Your task to perform on an android device: turn on the 12-hour format for clock Image 0: 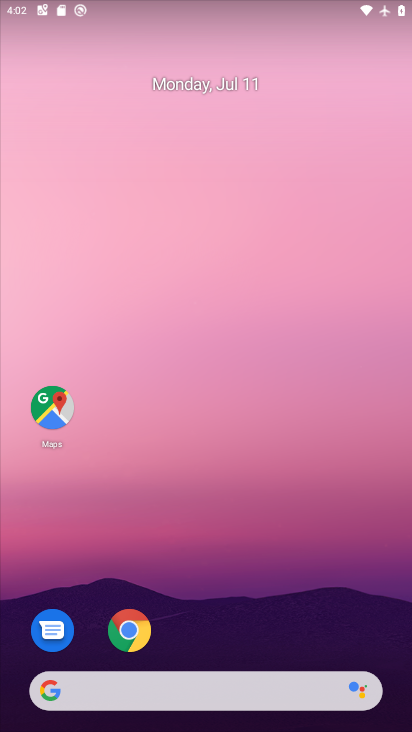
Step 0: drag from (225, 637) to (263, 162)
Your task to perform on an android device: turn on the 12-hour format for clock Image 1: 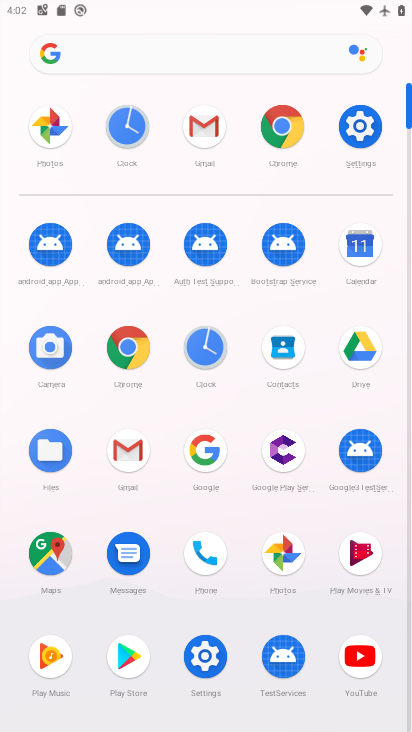
Step 1: click (126, 130)
Your task to perform on an android device: turn on the 12-hour format for clock Image 2: 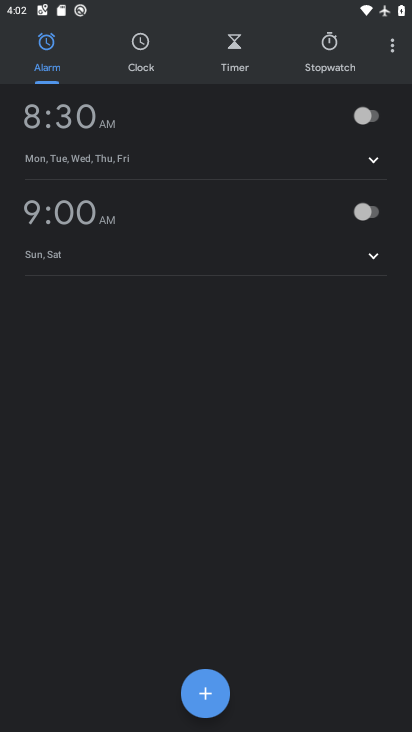
Step 2: click (389, 50)
Your task to perform on an android device: turn on the 12-hour format for clock Image 3: 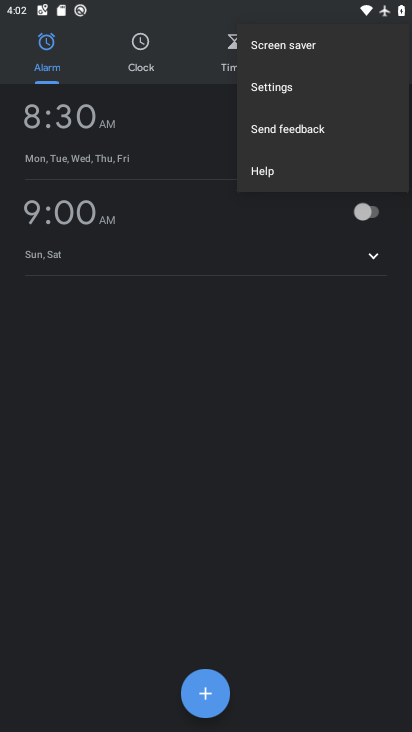
Step 3: click (325, 101)
Your task to perform on an android device: turn on the 12-hour format for clock Image 4: 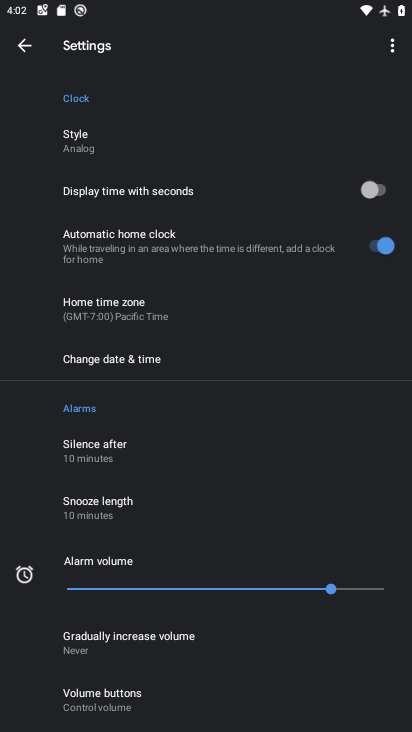
Step 4: click (243, 364)
Your task to perform on an android device: turn on the 12-hour format for clock Image 5: 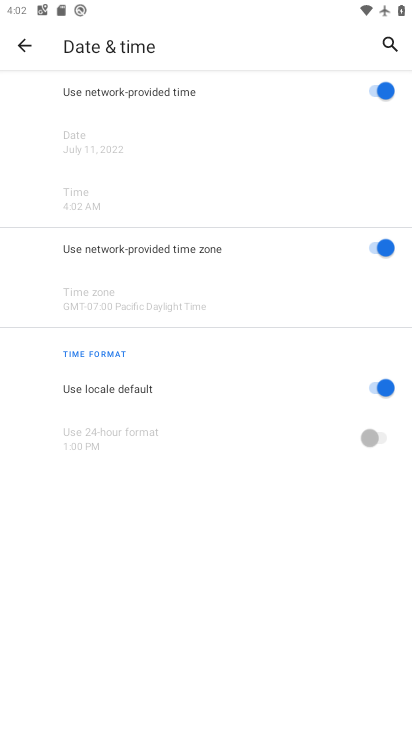
Step 5: click (360, 385)
Your task to perform on an android device: turn on the 12-hour format for clock Image 6: 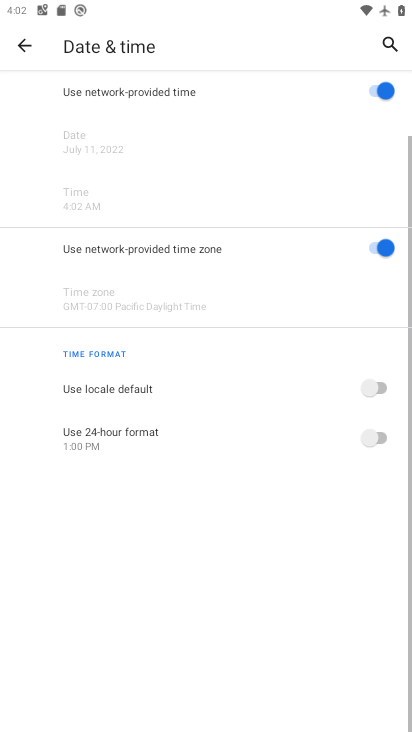
Step 6: click (360, 437)
Your task to perform on an android device: turn on the 12-hour format for clock Image 7: 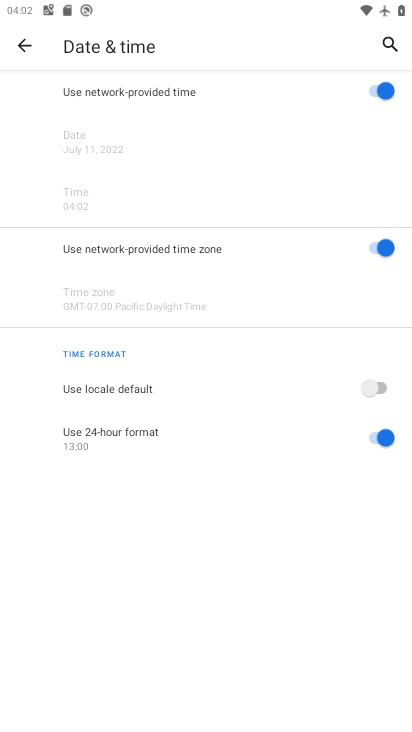
Step 7: task complete